Your task to perform on an android device: Add "bose soundlink" to the cart on walmart.com Image 0: 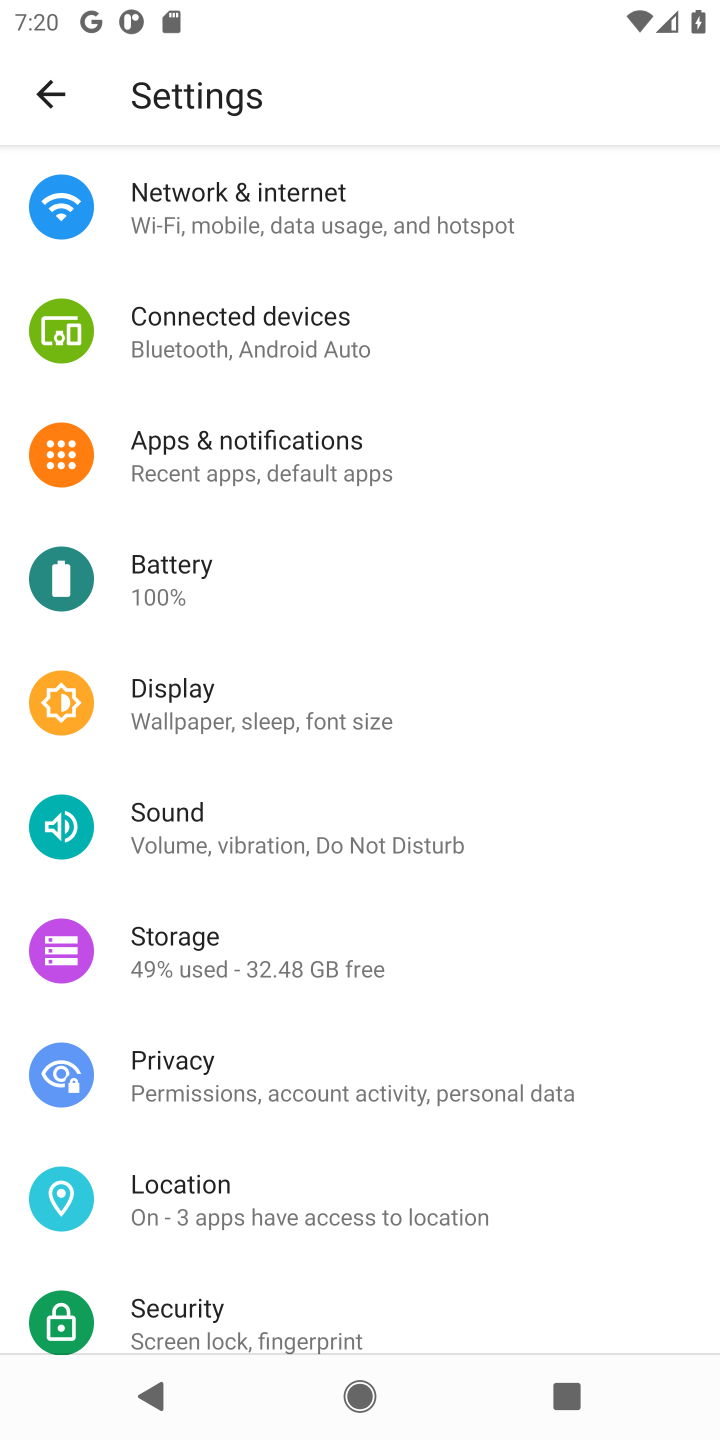
Step 0: press home button
Your task to perform on an android device: Add "bose soundlink" to the cart on walmart.com Image 1: 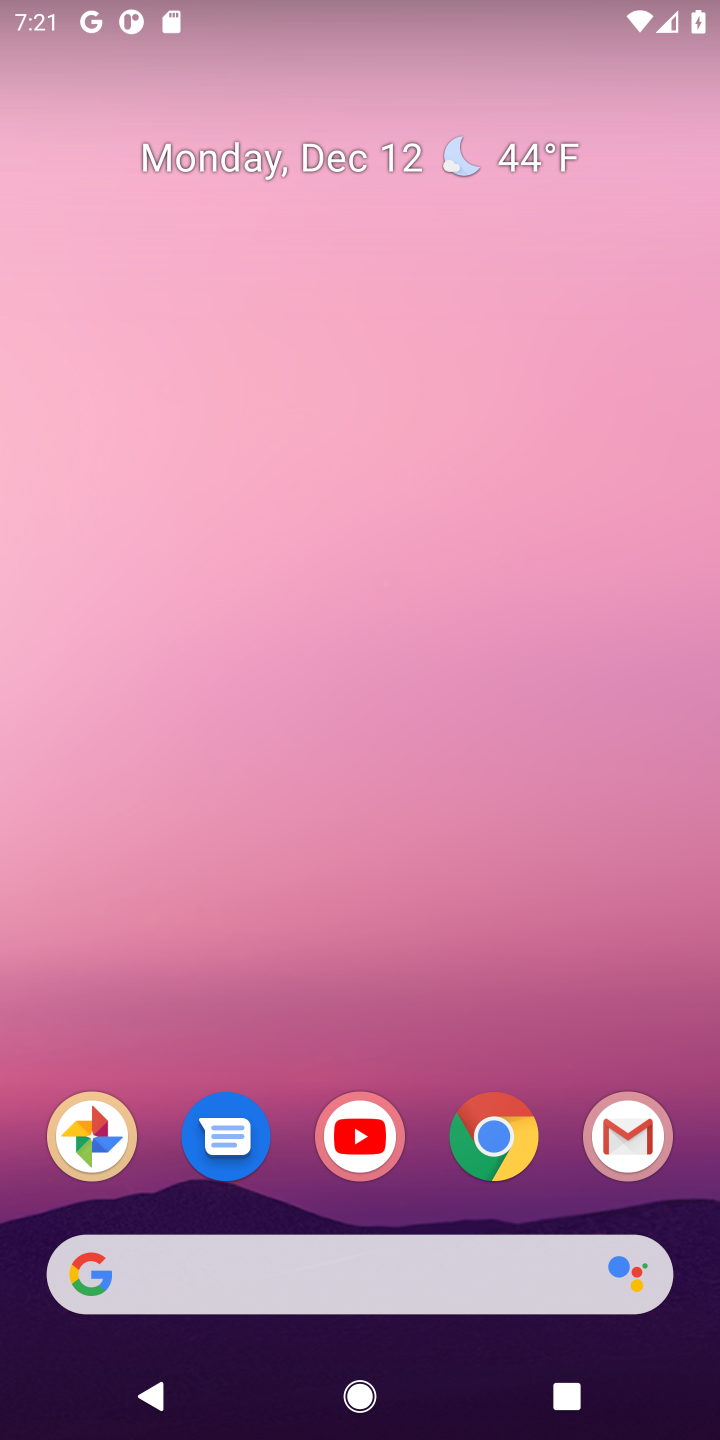
Step 1: click (482, 1141)
Your task to perform on an android device: Add "bose soundlink" to the cart on walmart.com Image 2: 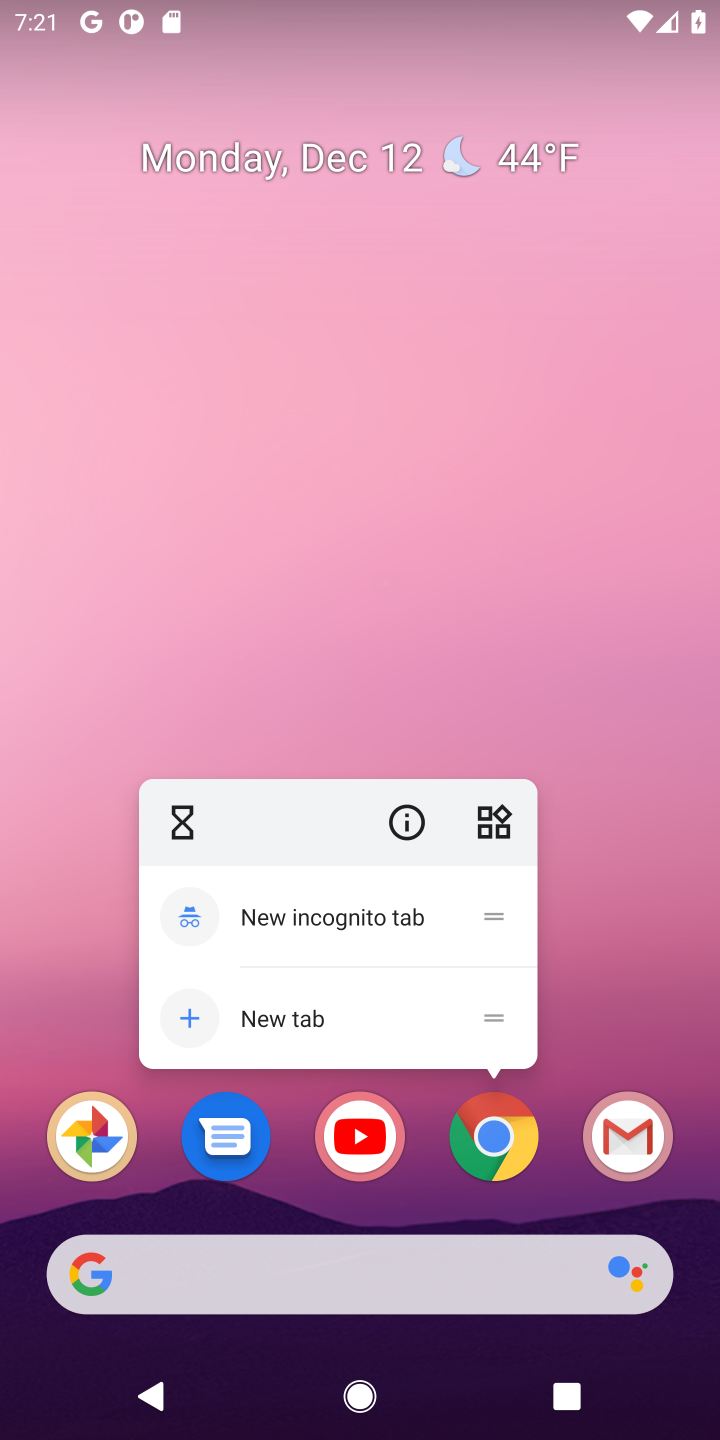
Step 2: click (486, 1152)
Your task to perform on an android device: Add "bose soundlink" to the cart on walmart.com Image 3: 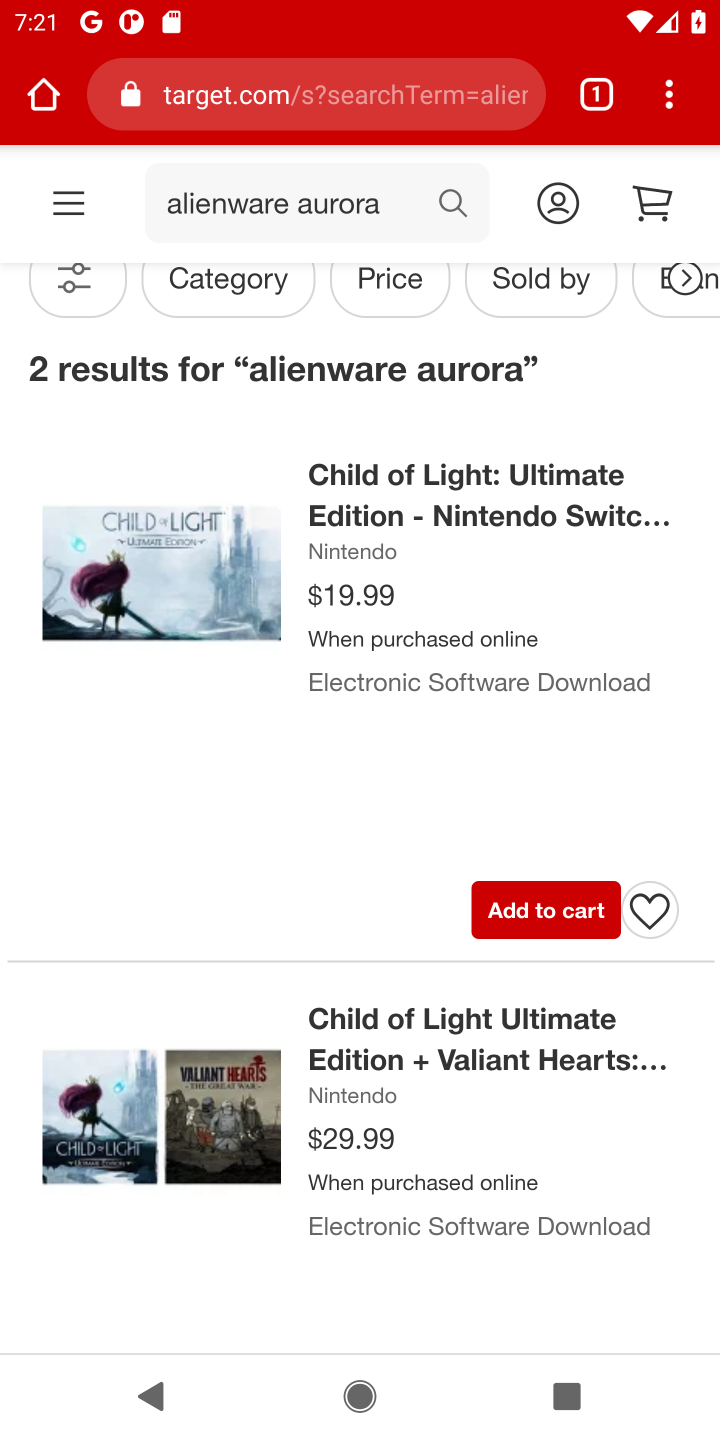
Step 3: click (364, 116)
Your task to perform on an android device: Add "bose soundlink" to the cart on walmart.com Image 4: 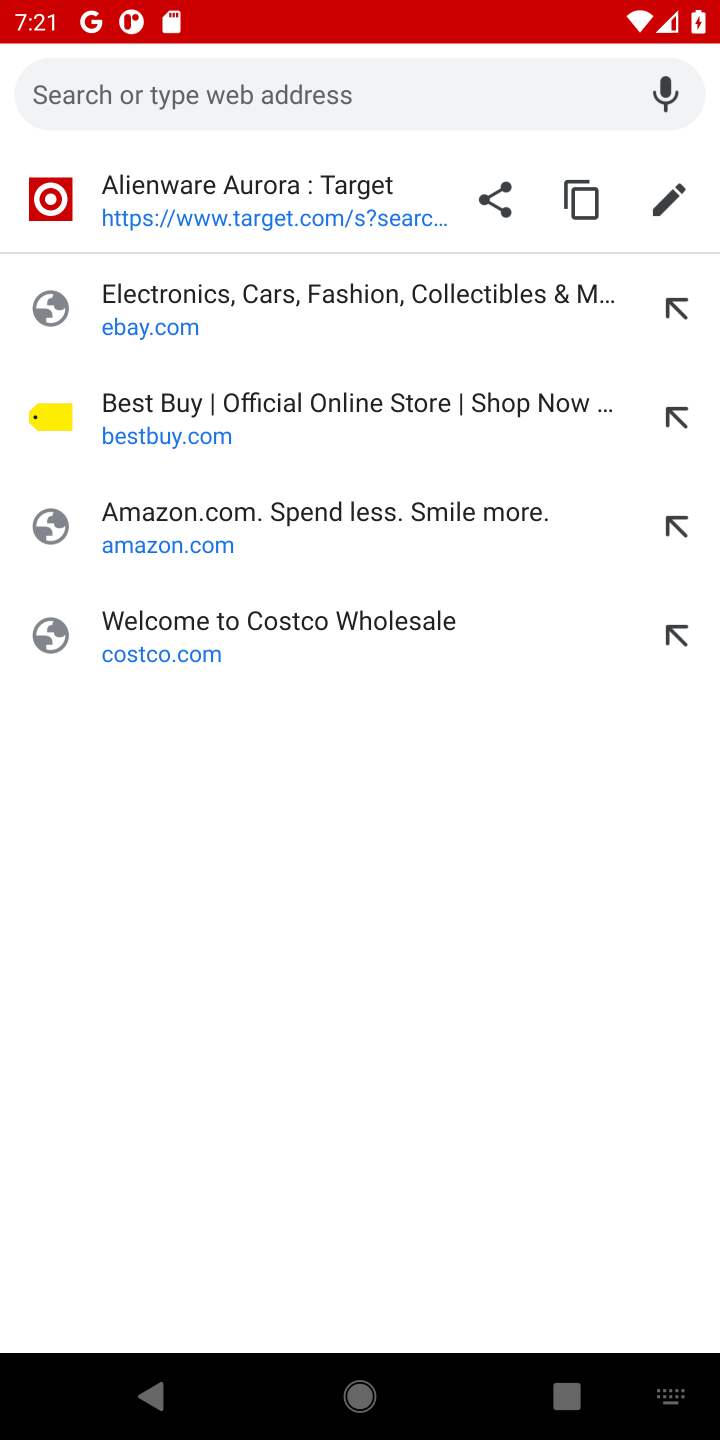
Step 4: type "walmart.com"
Your task to perform on an android device: Add "bose soundlink" to the cart on walmart.com Image 5: 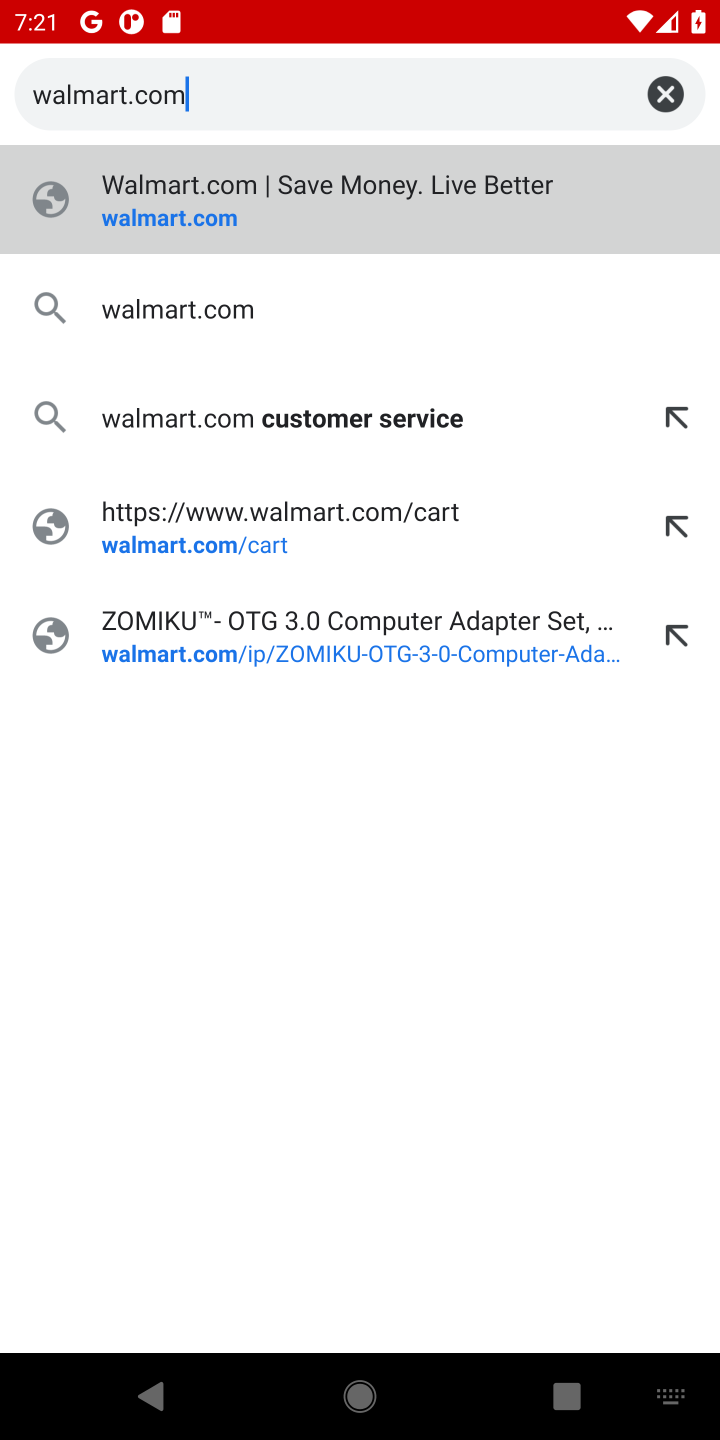
Step 5: click (151, 223)
Your task to perform on an android device: Add "bose soundlink" to the cart on walmart.com Image 6: 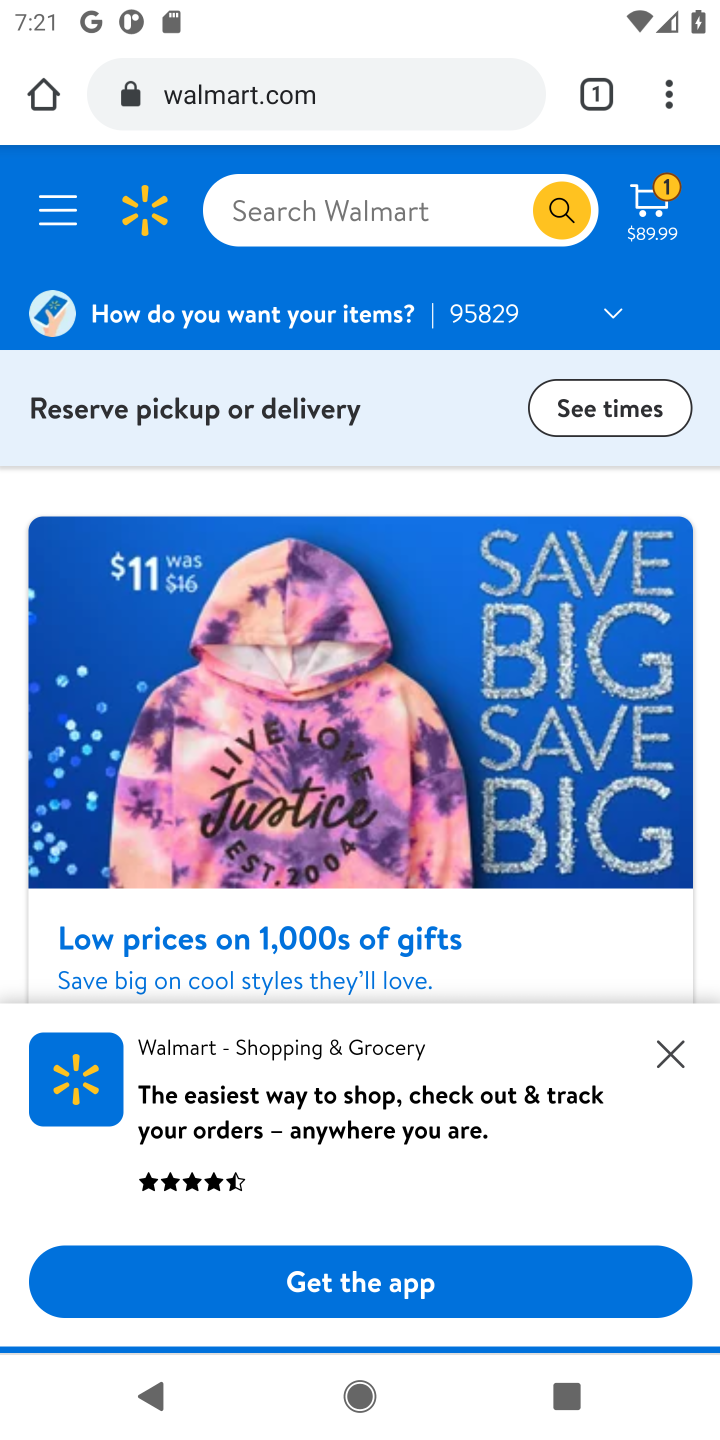
Step 6: click (373, 217)
Your task to perform on an android device: Add "bose soundlink" to the cart on walmart.com Image 7: 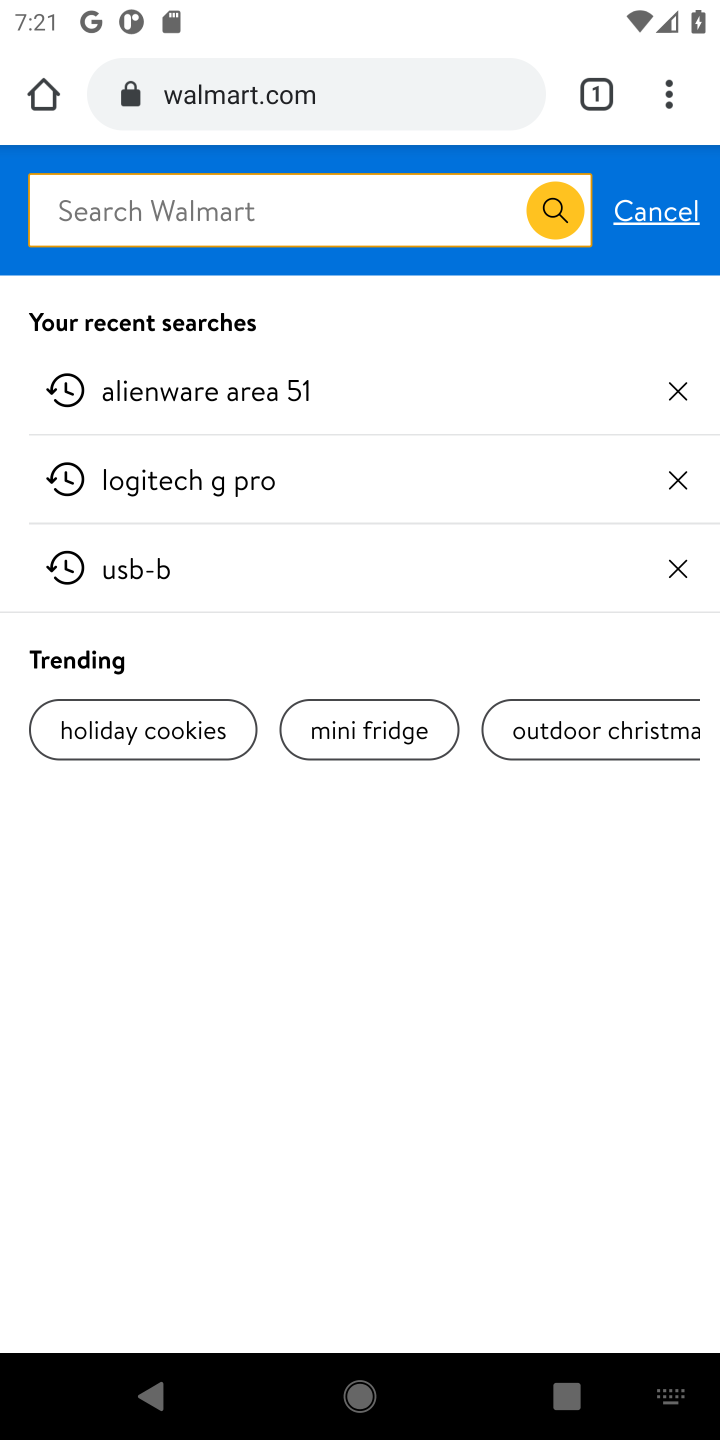
Step 7: type "bose soundlink"
Your task to perform on an android device: Add "bose soundlink" to the cart on walmart.com Image 8: 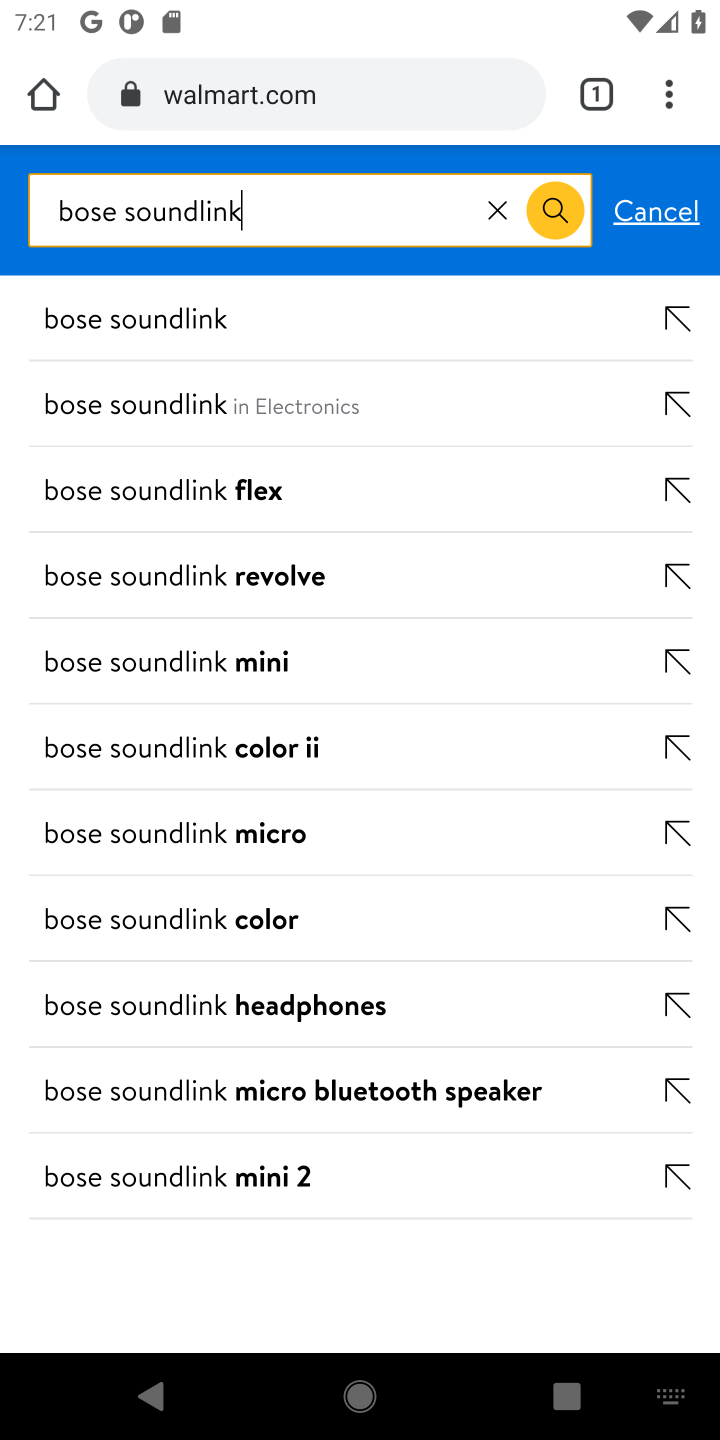
Step 8: click (119, 327)
Your task to perform on an android device: Add "bose soundlink" to the cart on walmart.com Image 9: 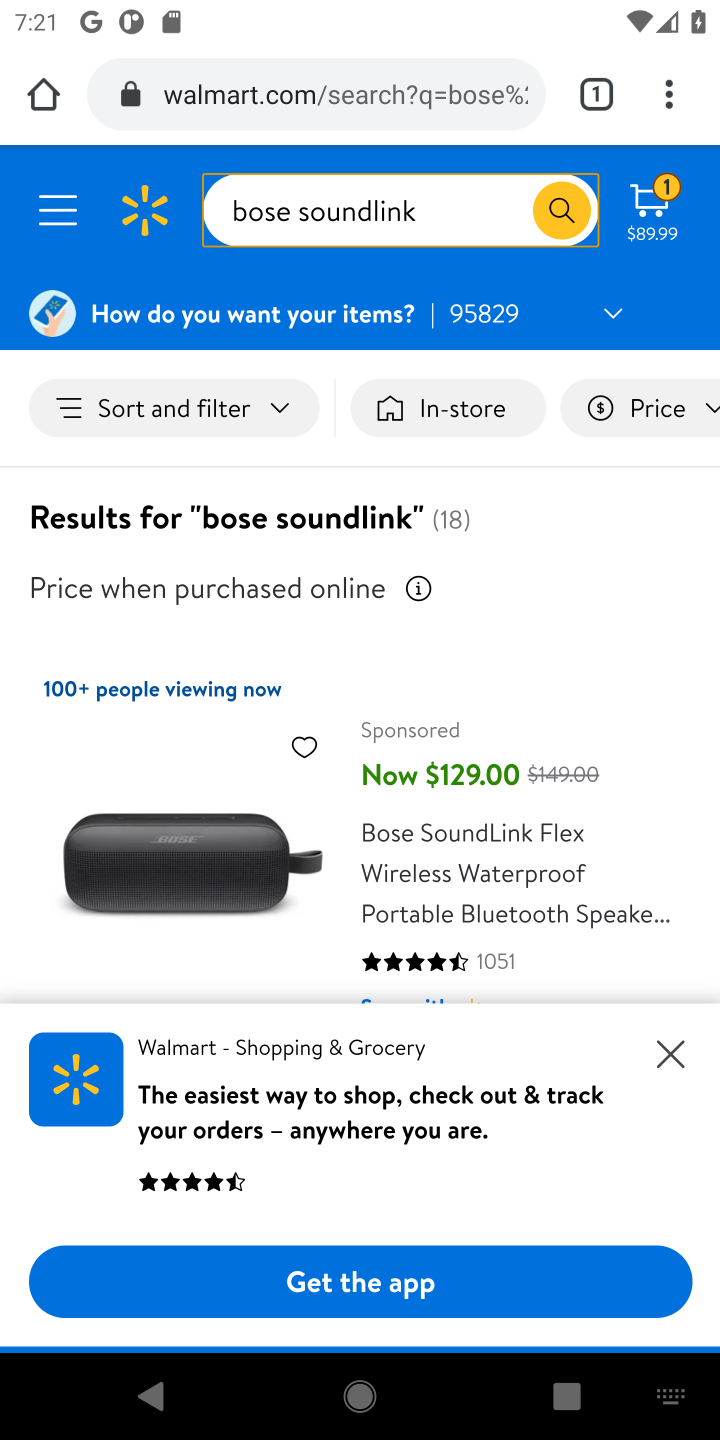
Step 9: drag from (259, 810) to (281, 442)
Your task to perform on an android device: Add "bose soundlink" to the cart on walmart.com Image 10: 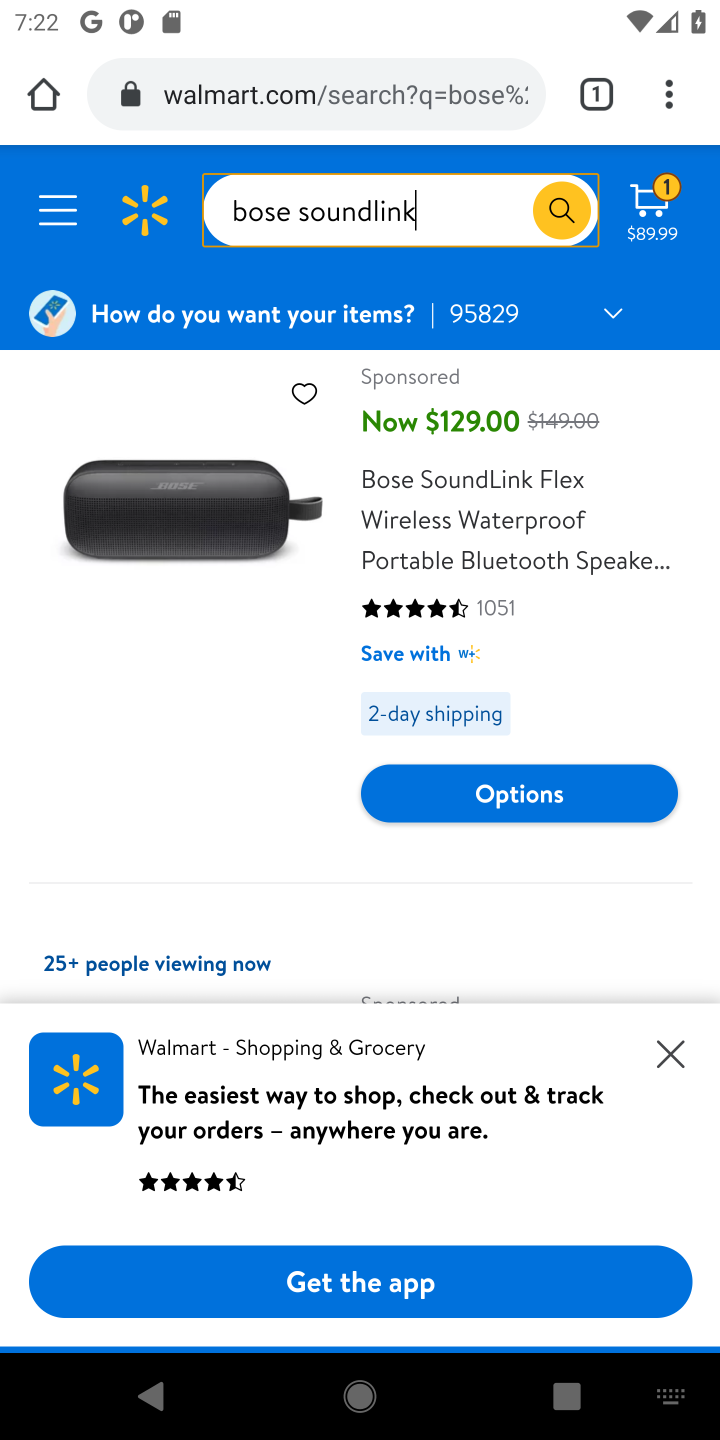
Step 10: click (504, 533)
Your task to perform on an android device: Add "bose soundlink" to the cart on walmart.com Image 11: 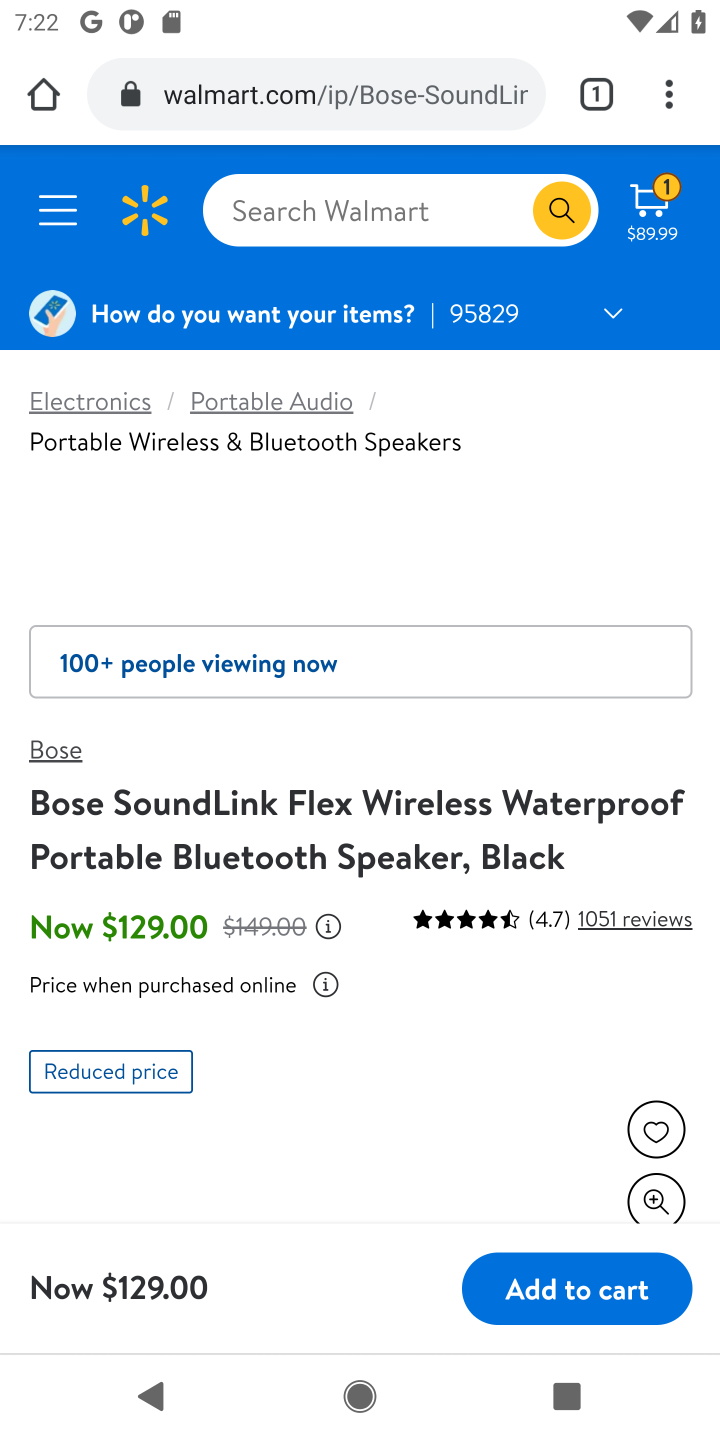
Step 11: click (560, 1301)
Your task to perform on an android device: Add "bose soundlink" to the cart on walmart.com Image 12: 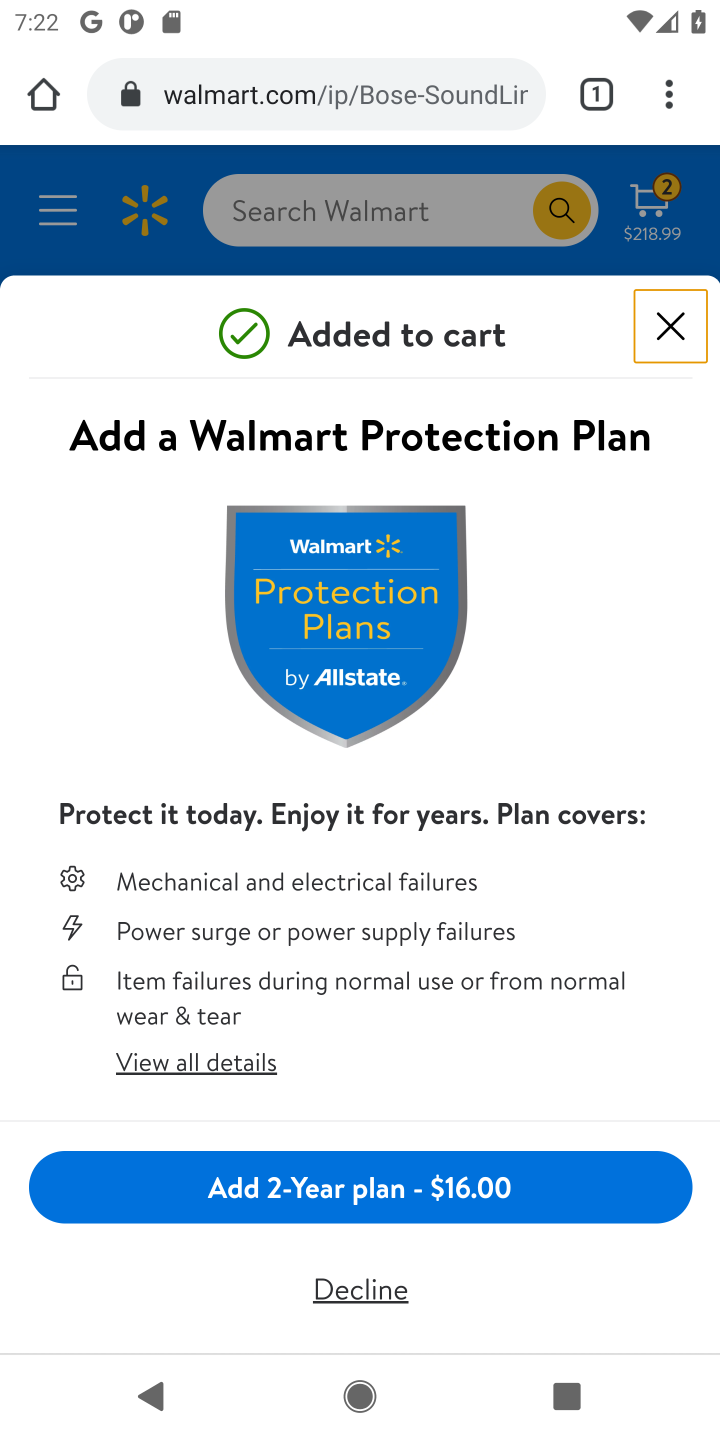
Step 12: task complete